Your task to perform on an android device: Set an alarm for 1pm Image 0: 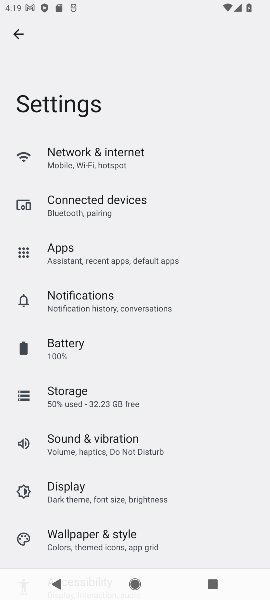
Step 0: press home button
Your task to perform on an android device: Set an alarm for 1pm Image 1: 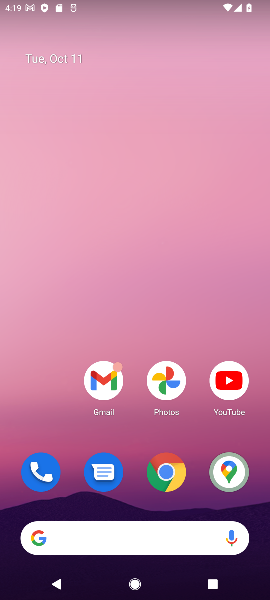
Step 1: click (155, 533)
Your task to perform on an android device: Set an alarm for 1pm Image 2: 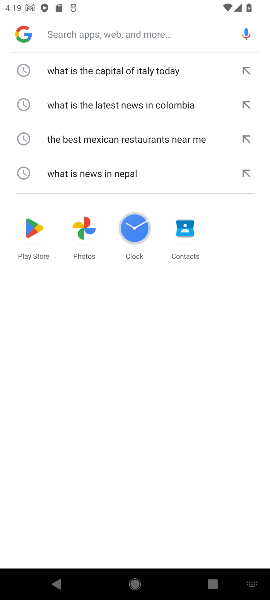
Step 2: type "Set an alarm for 1pm"
Your task to perform on an android device: Set an alarm for 1pm Image 3: 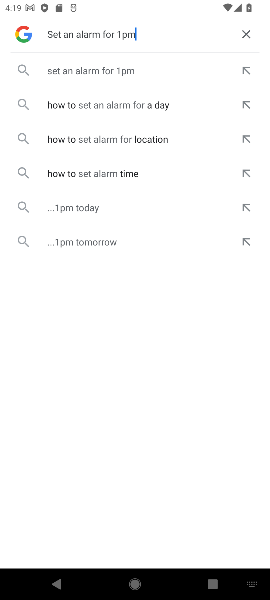
Step 3: click (118, 65)
Your task to perform on an android device: Set an alarm for 1pm Image 4: 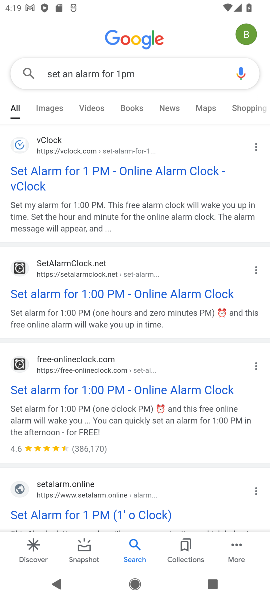
Step 4: task complete